Your task to perform on an android device: create a new album in the google photos Image 0: 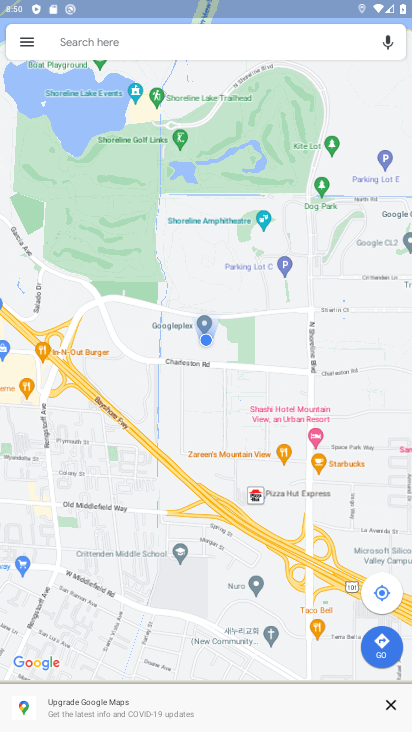
Step 0: press back button
Your task to perform on an android device: create a new album in the google photos Image 1: 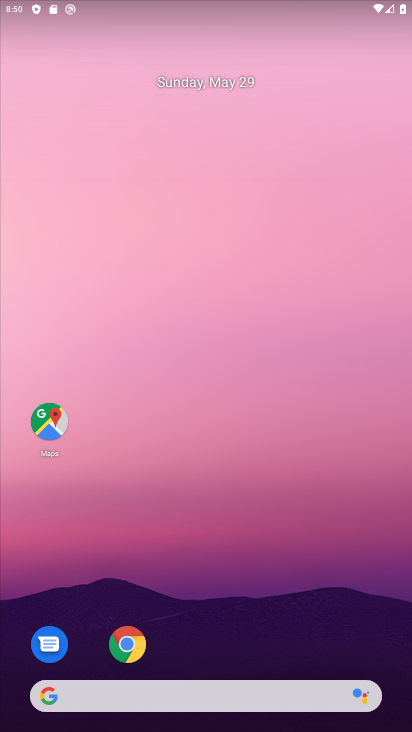
Step 1: drag from (243, 514) to (237, 63)
Your task to perform on an android device: create a new album in the google photos Image 2: 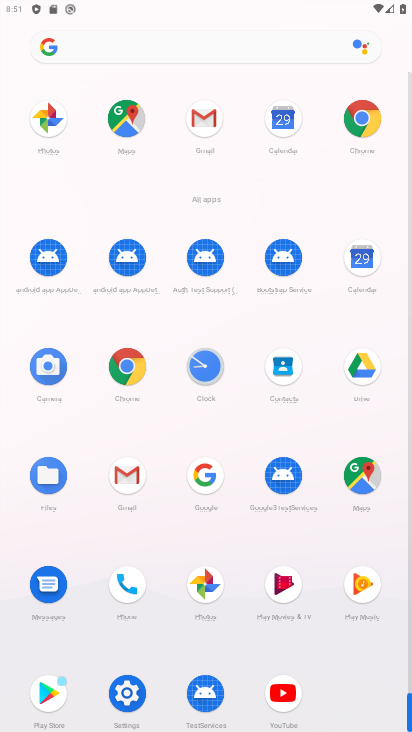
Step 2: click (206, 582)
Your task to perform on an android device: create a new album in the google photos Image 3: 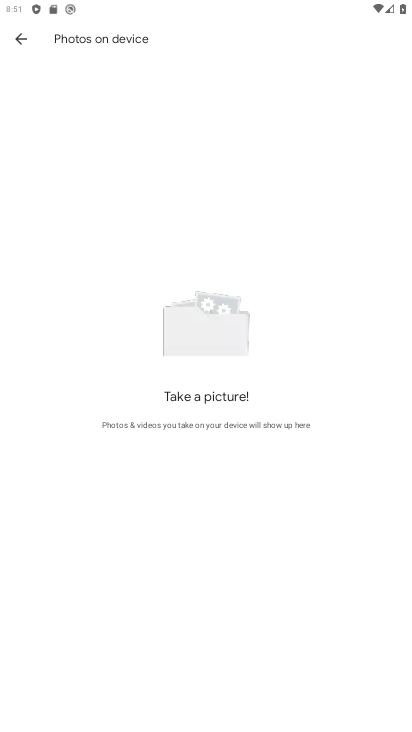
Step 3: click (27, 33)
Your task to perform on an android device: create a new album in the google photos Image 4: 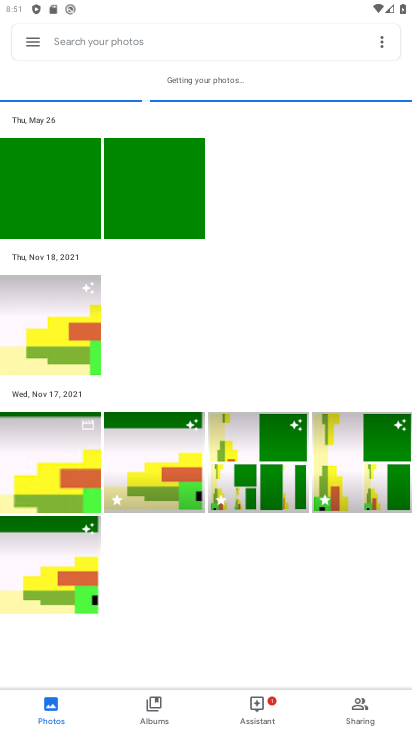
Step 4: click (156, 189)
Your task to perform on an android device: create a new album in the google photos Image 5: 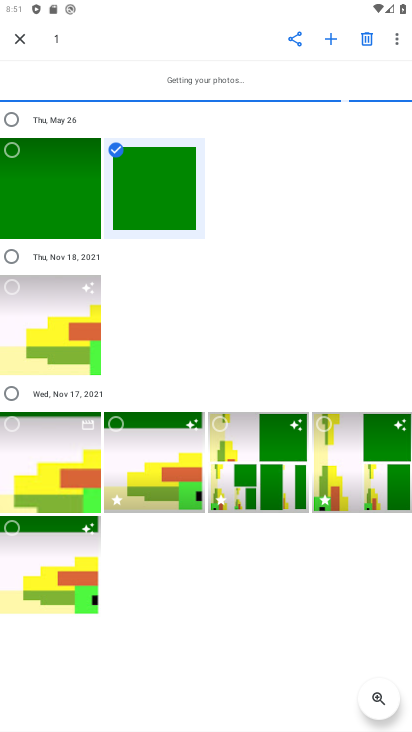
Step 5: click (323, 36)
Your task to perform on an android device: create a new album in the google photos Image 6: 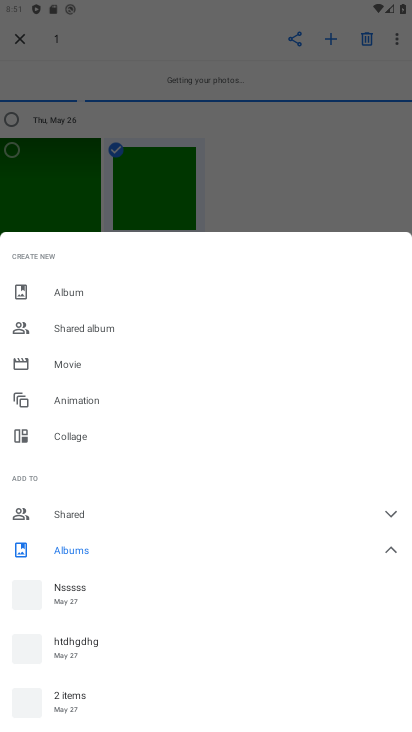
Step 6: click (98, 292)
Your task to perform on an android device: create a new album in the google photos Image 7: 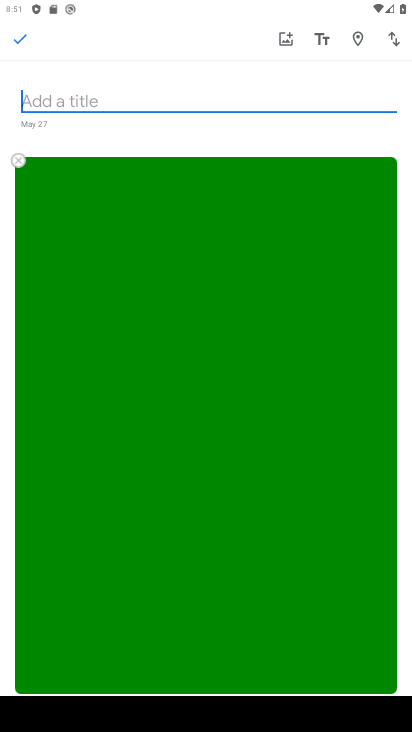
Step 7: type "Cjjhghh"
Your task to perform on an android device: create a new album in the google photos Image 8: 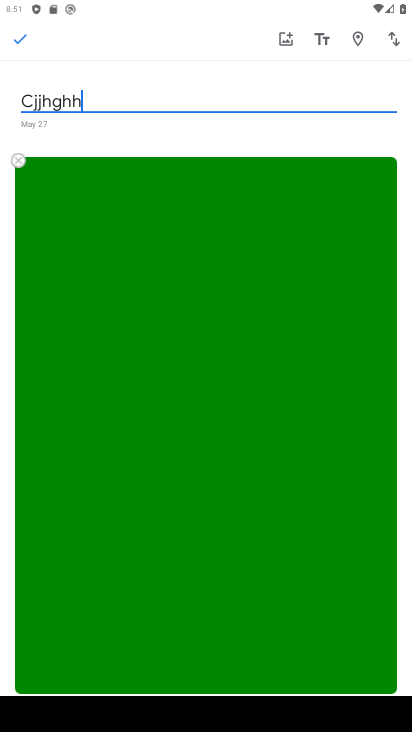
Step 8: type ""
Your task to perform on an android device: create a new album in the google photos Image 9: 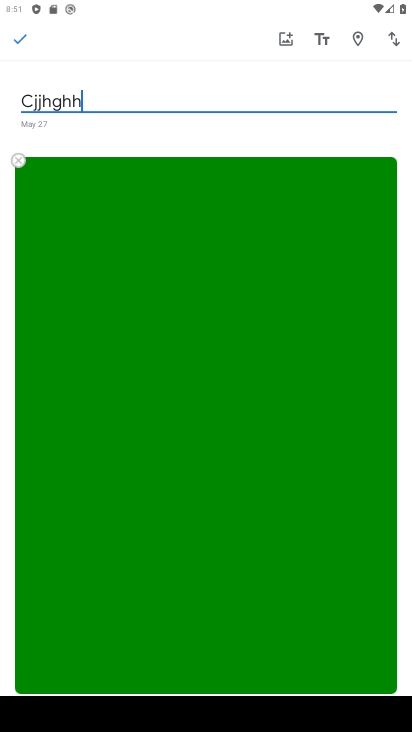
Step 9: click (18, 30)
Your task to perform on an android device: create a new album in the google photos Image 10: 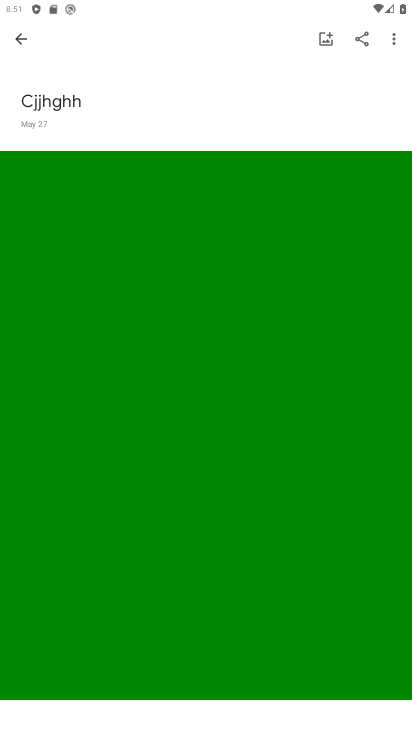
Step 10: task complete